Your task to perform on an android device: Open Amazon Image 0: 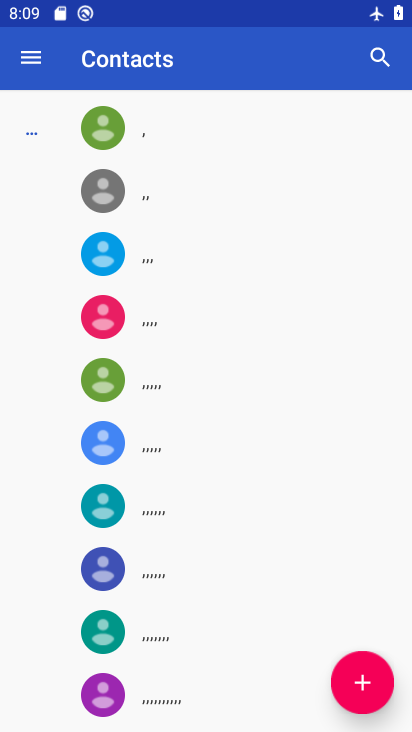
Step 0: press home button
Your task to perform on an android device: Open Amazon Image 1: 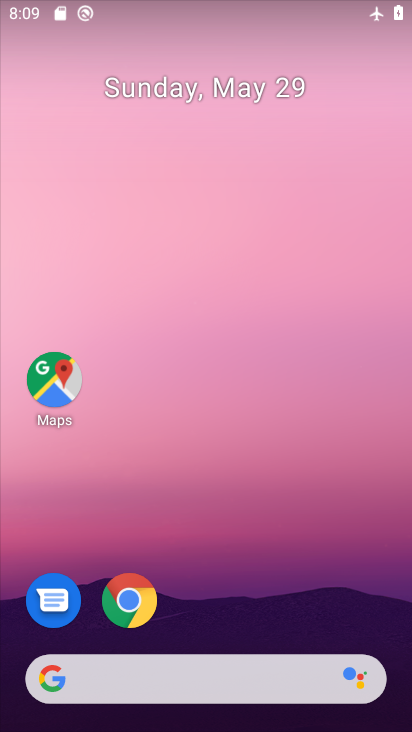
Step 1: click (135, 583)
Your task to perform on an android device: Open Amazon Image 2: 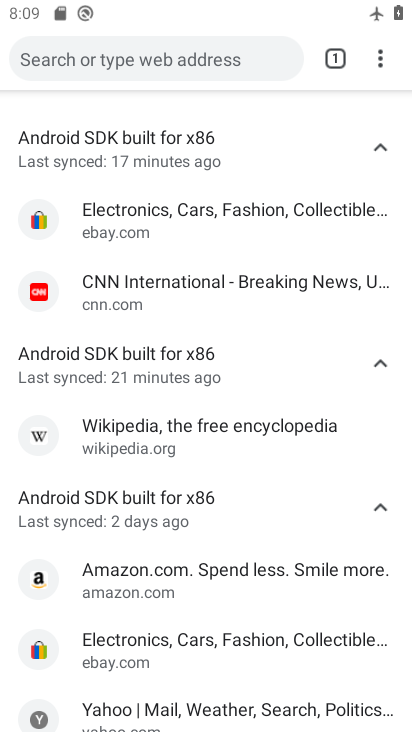
Step 2: click (139, 62)
Your task to perform on an android device: Open Amazon Image 3: 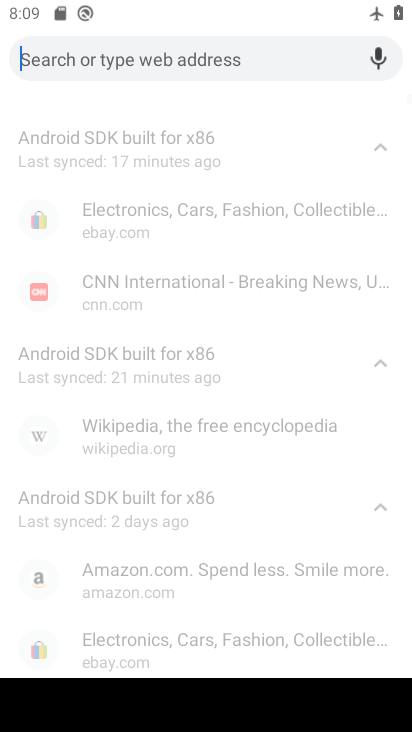
Step 3: click (192, 557)
Your task to perform on an android device: Open Amazon Image 4: 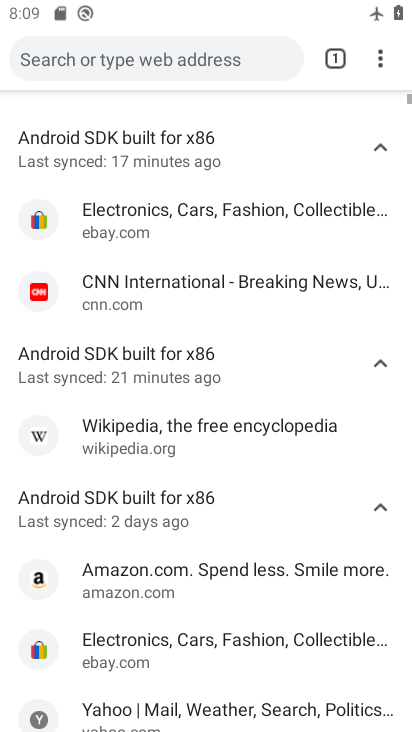
Step 4: click (194, 595)
Your task to perform on an android device: Open Amazon Image 5: 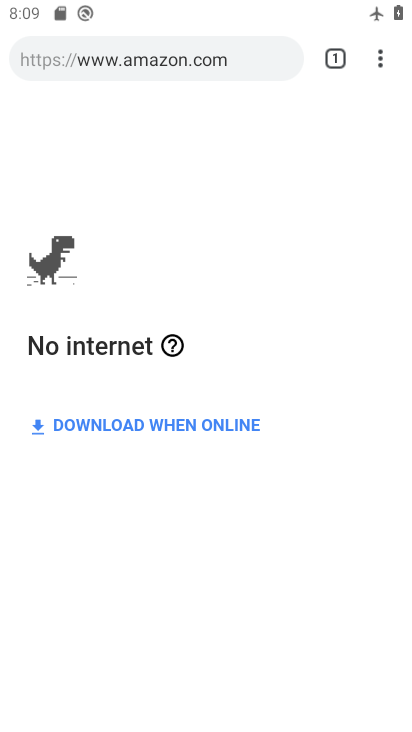
Step 5: task complete